Your task to perform on an android device: Open the web browser Image 0: 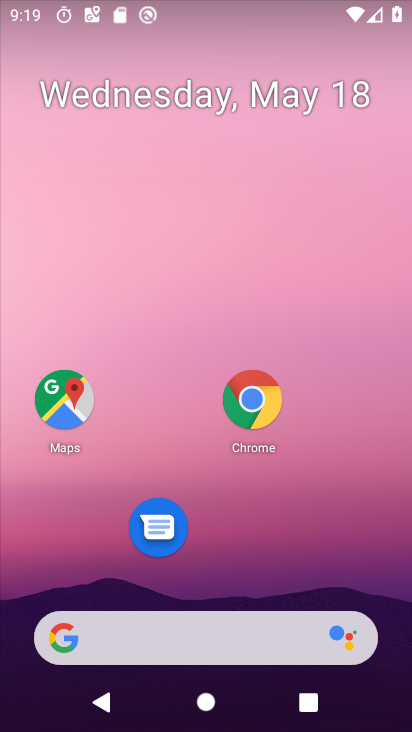
Step 0: click (257, 442)
Your task to perform on an android device: Open the web browser Image 1: 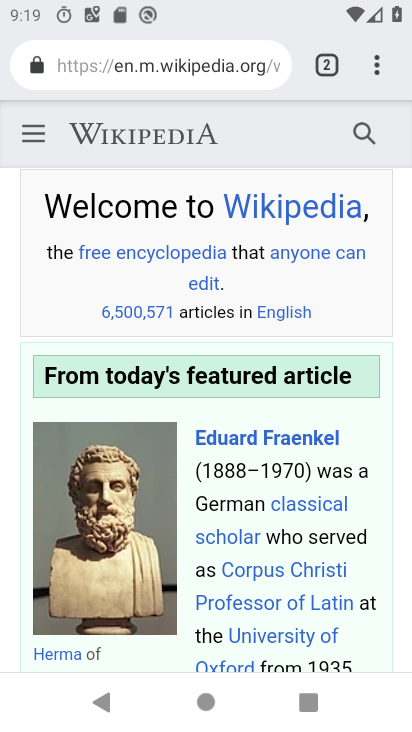
Step 1: task complete